Your task to perform on an android device: Open the calendar app, open the side menu, and click the "Day" option Image 0: 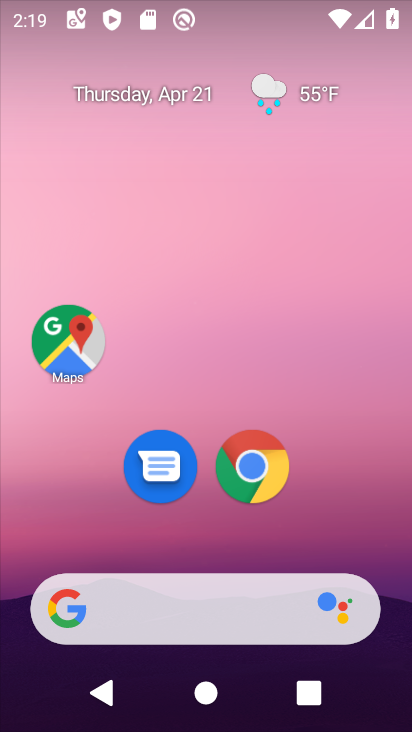
Step 0: drag from (301, 531) to (296, 95)
Your task to perform on an android device: Open the calendar app, open the side menu, and click the "Day" option Image 1: 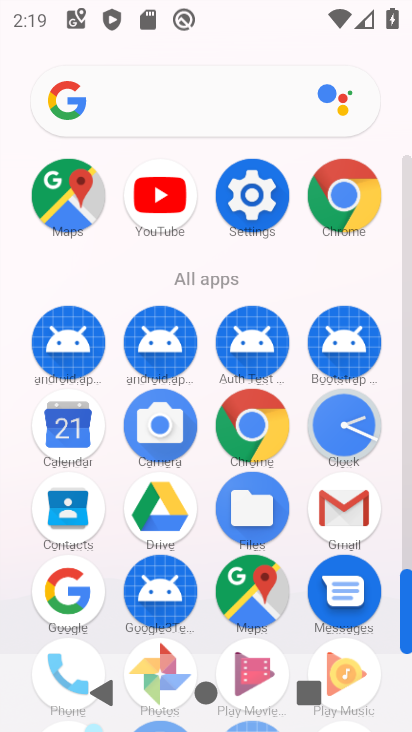
Step 1: click (72, 435)
Your task to perform on an android device: Open the calendar app, open the side menu, and click the "Day" option Image 2: 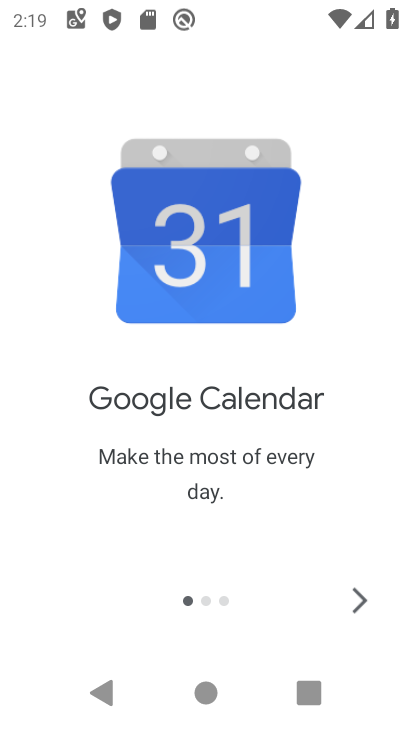
Step 2: click (365, 602)
Your task to perform on an android device: Open the calendar app, open the side menu, and click the "Day" option Image 3: 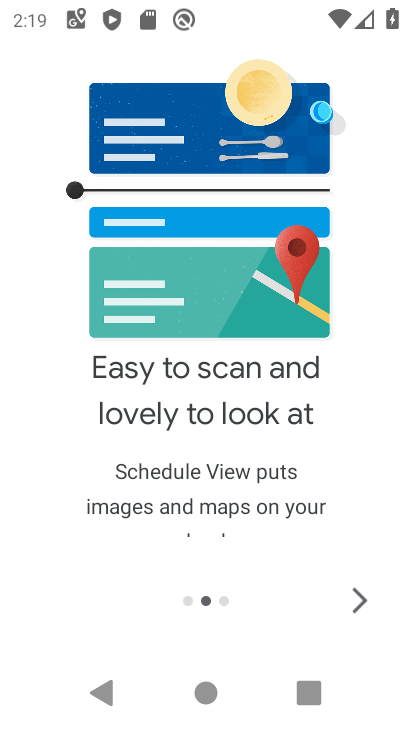
Step 3: click (365, 602)
Your task to perform on an android device: Open the calendar app, open the side menu, and click the "Day" option Image 4: 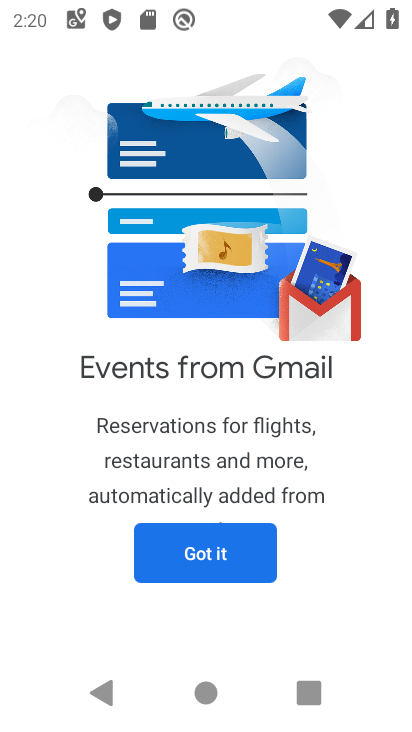
Step 4: click (260, 562)
Your task to perform on an android device: Open the calendar app, open the side menu, and click the "Day" option Image 5: 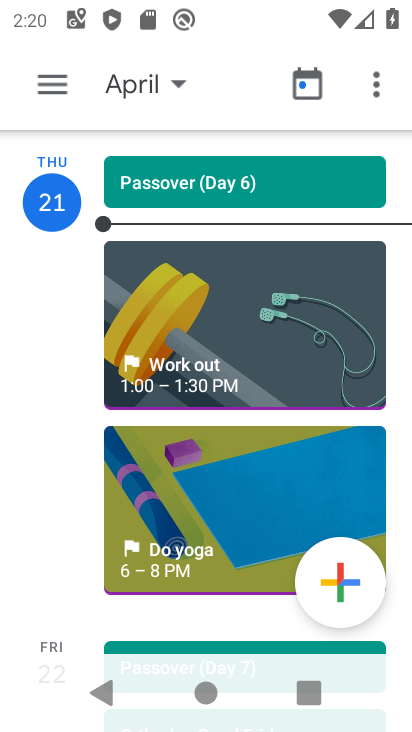
Step 5: click (42, 80)
Your task to perform on an android device: Open the calendar app, open the side menu, and click the "Day" option Image 6: 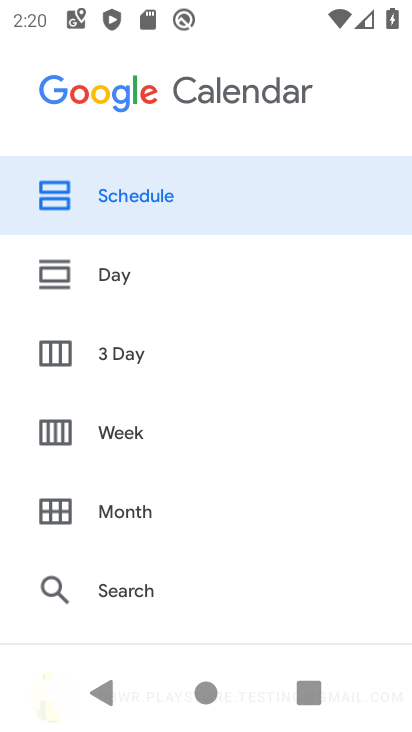
Step 6: click (112, 270)
Your task to perform on an android device: Open the calendar app, open the side menu, and click the "Day" option Image 7: 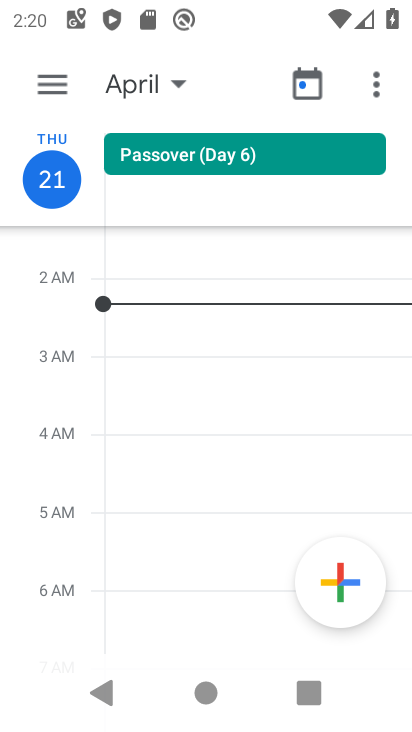
Step 7: task complete